Your task to perform on an android device: change the clock display to digital Image 0: 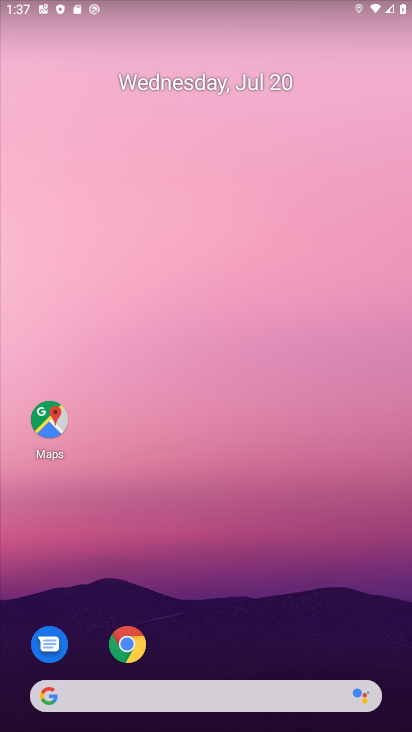
Step 0: press home button
Your task to perform on an android device: change the clock display to digital Image 1: 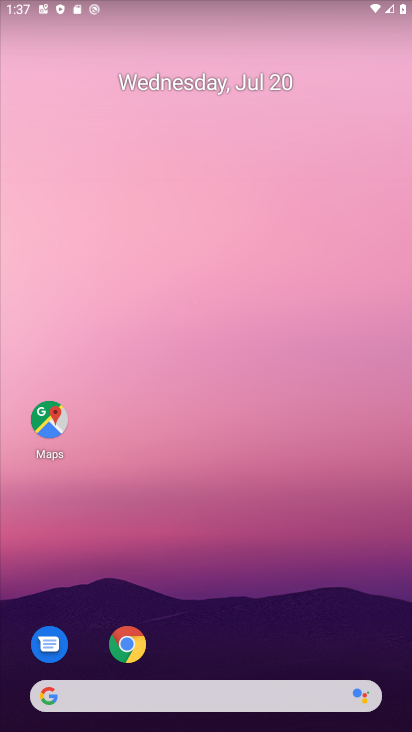
Step 1: drag from (251, 645) to (275, 3)
Your task to perform on an android device: change the clock display to digital Image 2: 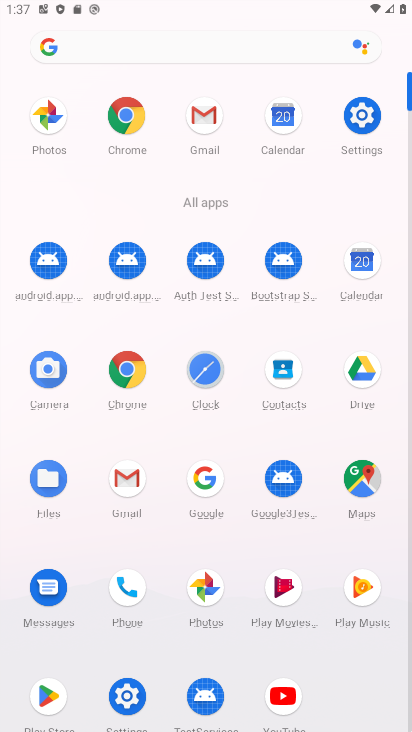
Step 2: click (202, 375)
Your task to perform on an android device: change the clock display to digital Image 3: 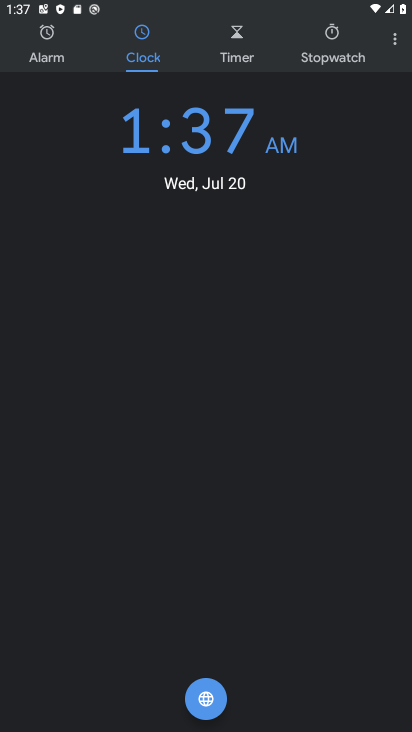
Step 3: click (390, 41)
Your task to perform on an android device: change the clock display to digital Image 4: 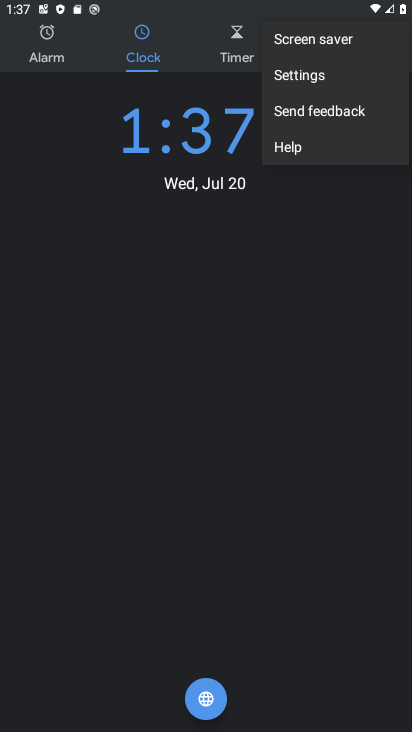
Step 4: click (306, 77)
Your task to perform on an android device: change the clock display to digital Image 5: 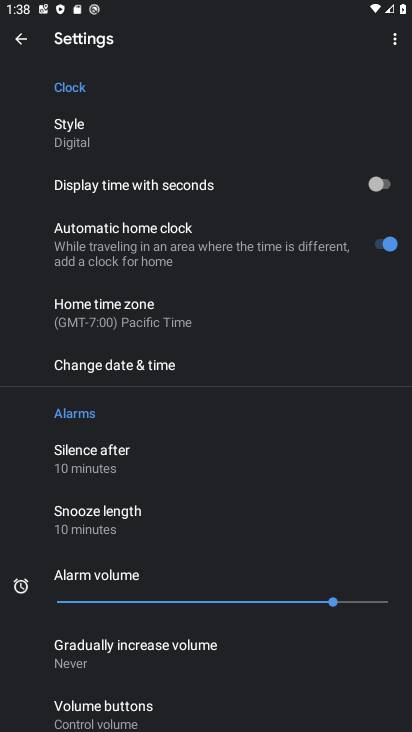
Step 5: click (67, 143)
Your task to perform on an android device: change the clock display to digital Image 6: 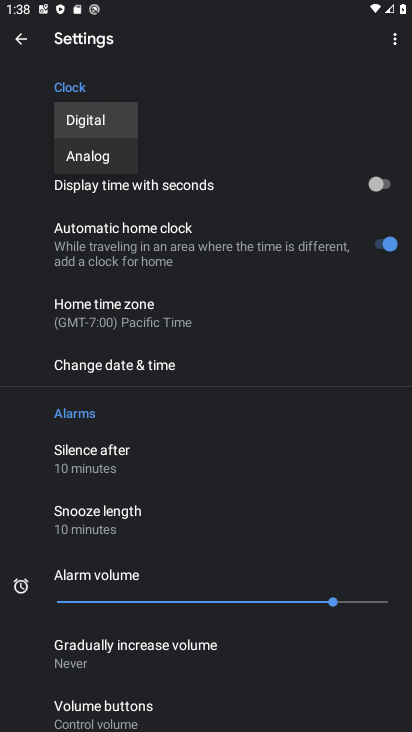
Step 6: task complete